Your task to perform on an android device: change text size in settings app Image 0: 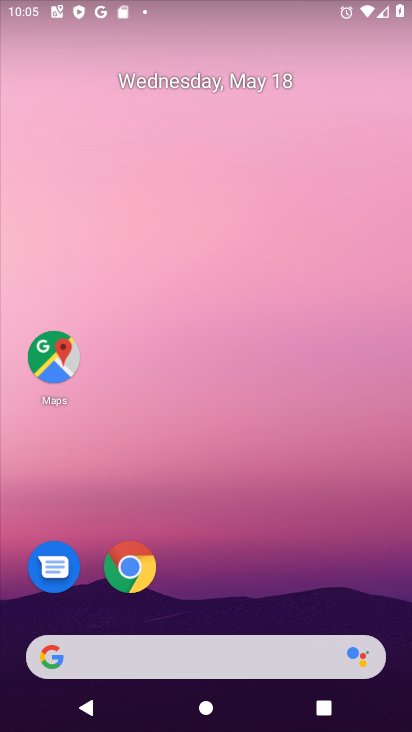
Step 0: drag from (192, 653) to (215, 188)
Your task to perform on an android device: change text size in settings app Image 1: 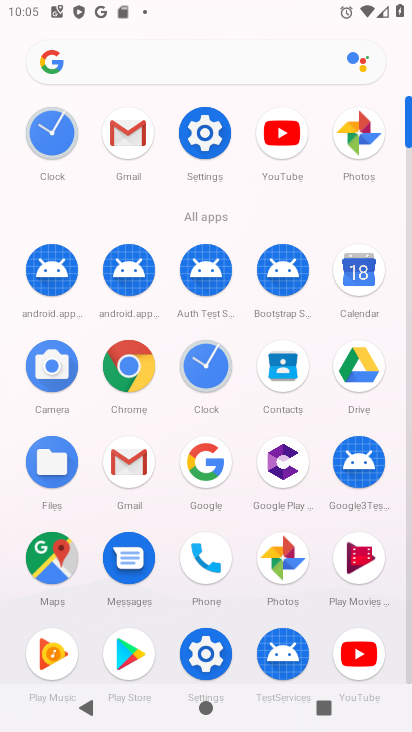
Step 1: click (213, 654)
Your task to perform on an android device: change text size in settings app Image 2: 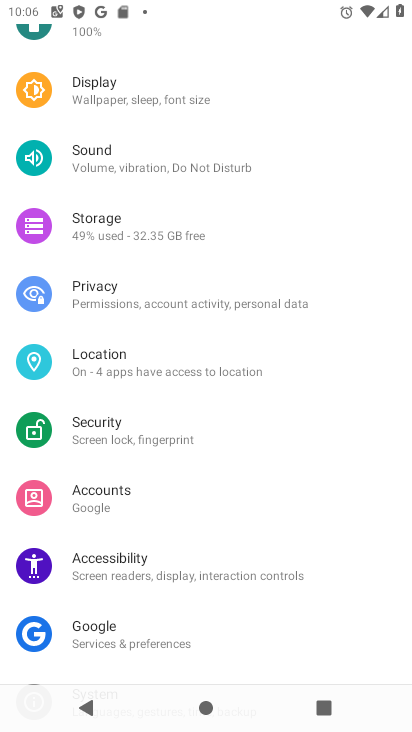
Step 2: click (79, 99)
Your task to perform on an android device: change text size in settings app Image 3: 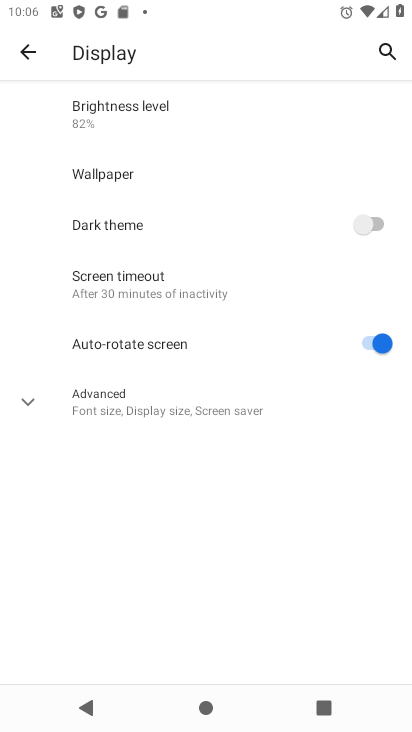
Step 3: click (101, 402)
Your task to perform on an android device: change text size in settings app Image 4: 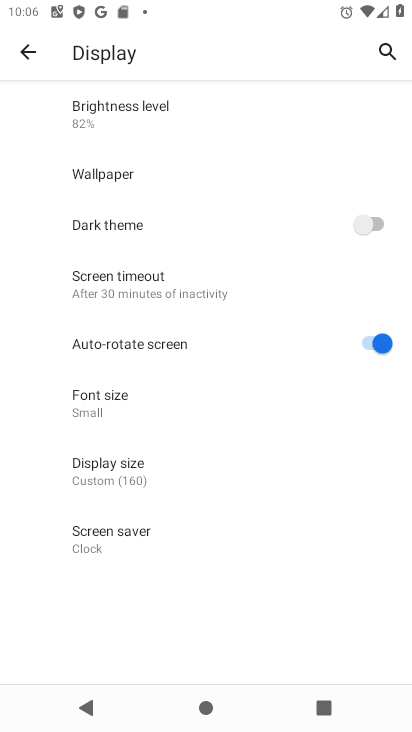
Step 4: click (110, 400)
Your task to perform on an android device: change text size in settings app Image 5: 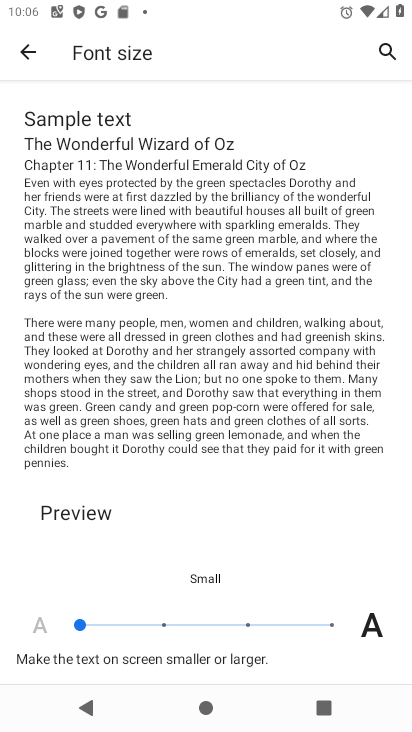
Step 5: click (160, 624)
Your task to perform on an android device: change text size in settings app Image 6: 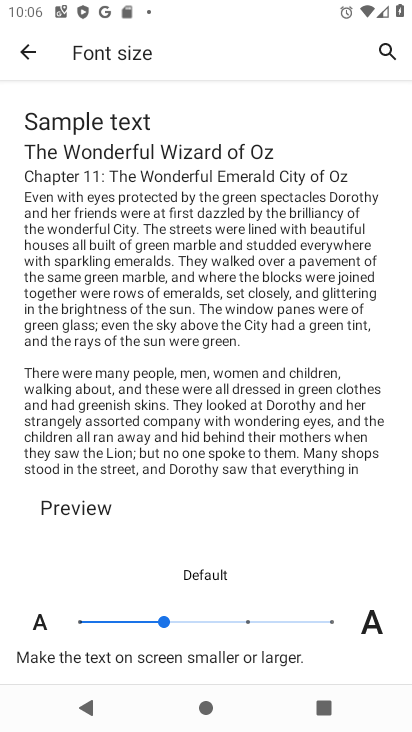
Step 6: task complete